Your task to perform on an android device: Open the phone app and click the voicemail tab. Image 0: 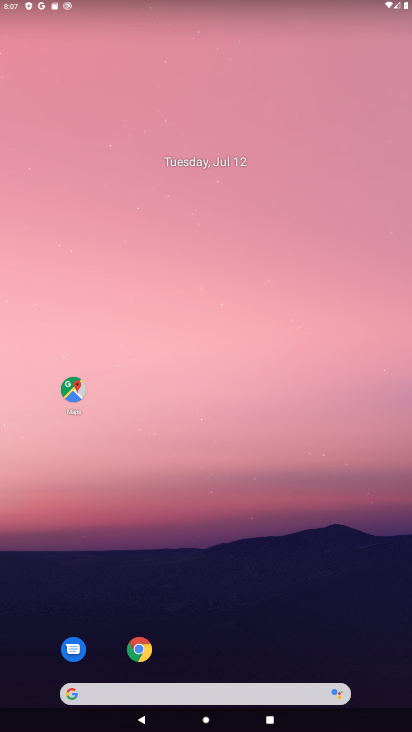
Step 0: drag from (266, 661) to (282, 95)
Your task to perform on an android device: Open the phone app and click the voicemail tab. Image 1: 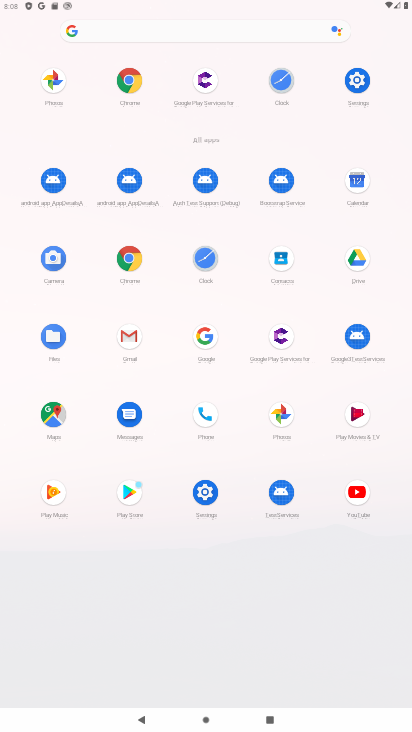
Step 1: click (189, 428)
Your task to perform on an android device: Open the phone app and click the voicemail tab. Image 2: 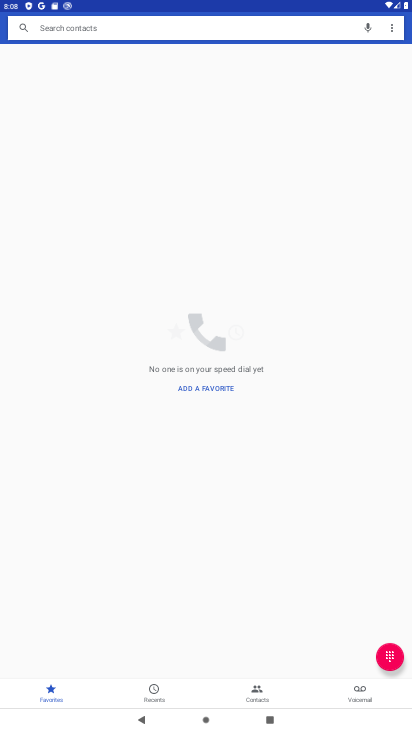
Step 2: click (345, 694)
Your task to perform on an android device: Open the phone app and click the voicemail tab. Image 3: 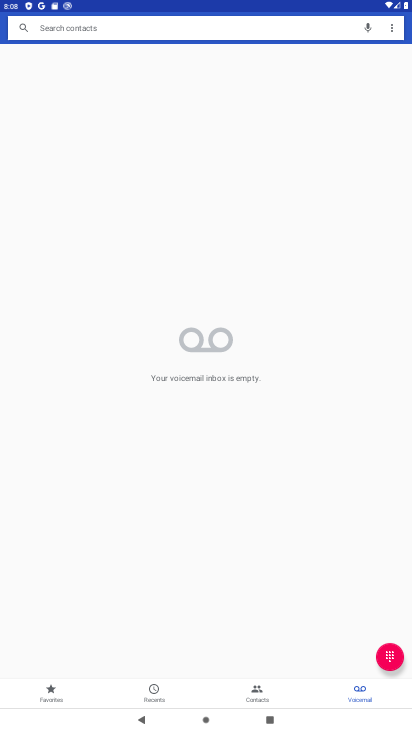
Step 3: task complete